Your task to perform on an android device: toggle data saver in the chrome app Image 0: 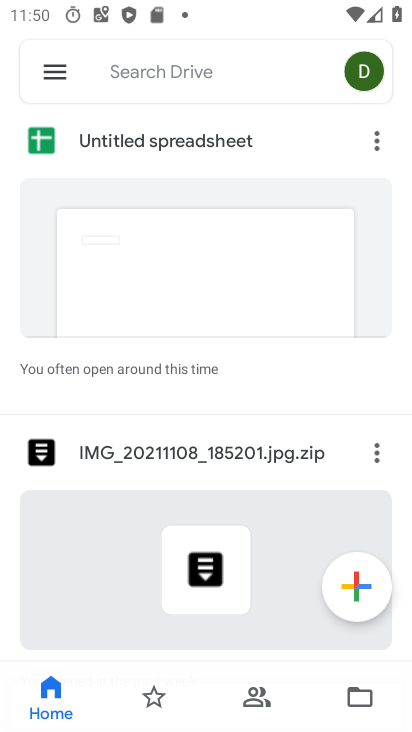
Step 0: press home button
Your task to perform on an android device: toggle data saver in the chrome app Image 1: 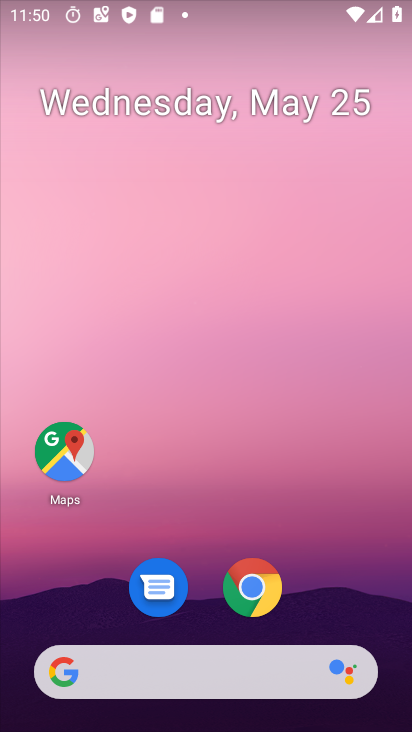
Step 1: drag from (248, 697) to (228, 71)
Your task to perform on an android device: toggle data saver in the chrome app Image 2: 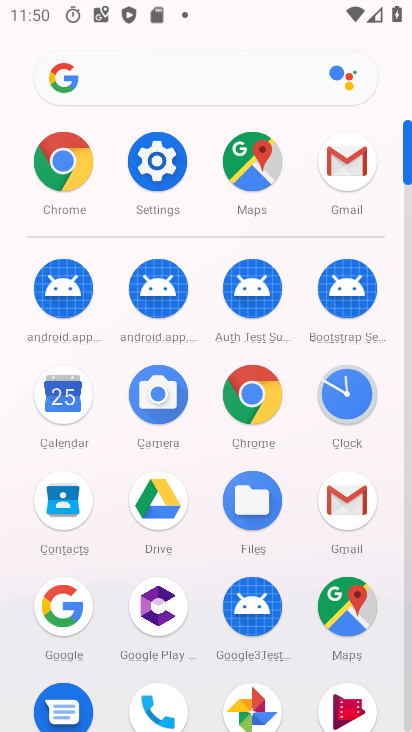
Step 2: click (71, 170)
Your task to perform on an android device: toggle data saver in the chrome app Image 3: 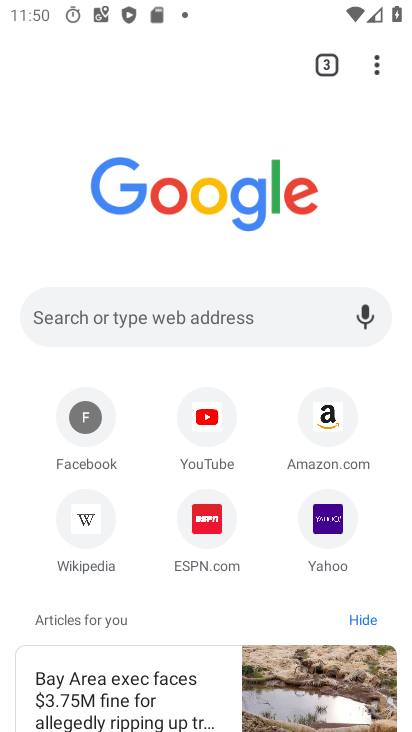
Step 3: click (379, 81)
Your task to perform on an android device: toggle data saver in the chrome app Image 4: 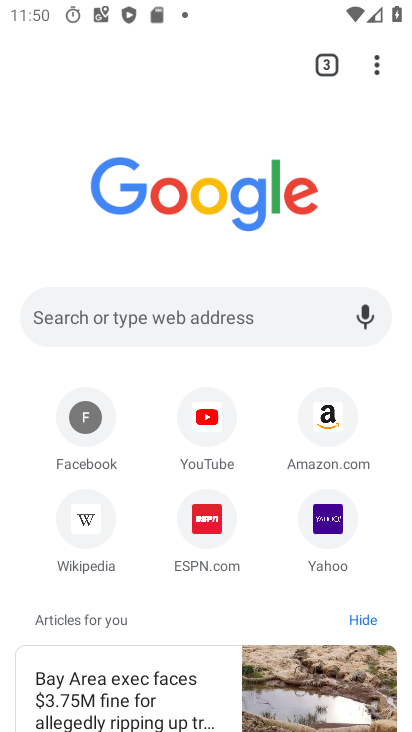
Step 4: click (365, 75)
Your task to perform on an android device: toggle data saver in the chrome app Image 5: 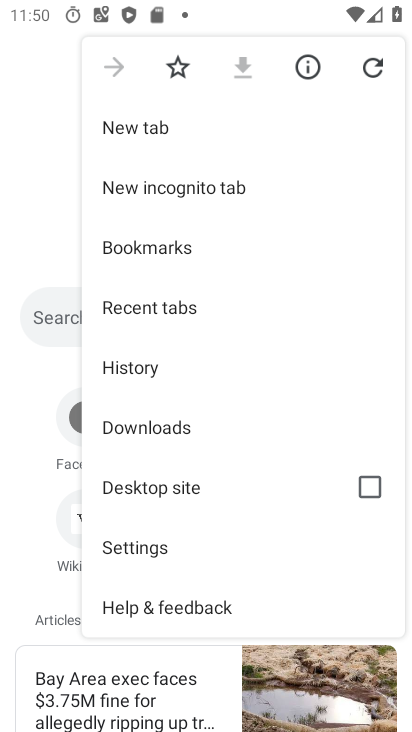
Step 5: click (167, 547)
Your task to perform on an android device: toggle data saver in the chrome app Image 6: 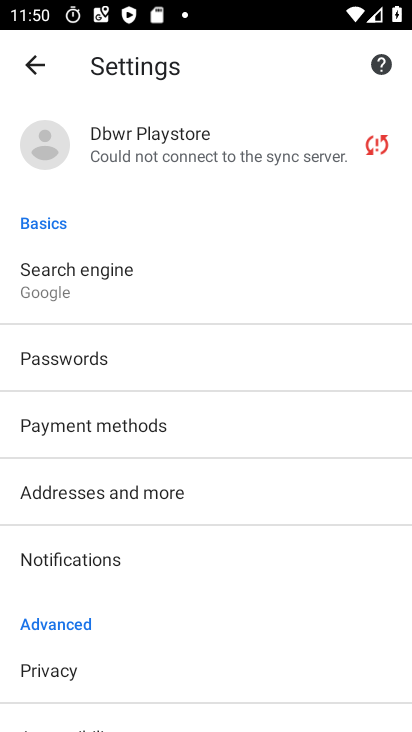
Step 6: drag from (178, 676) to (212, 329)
Your task to perform on an android device: toggle data saver in the chrome app Image 7: 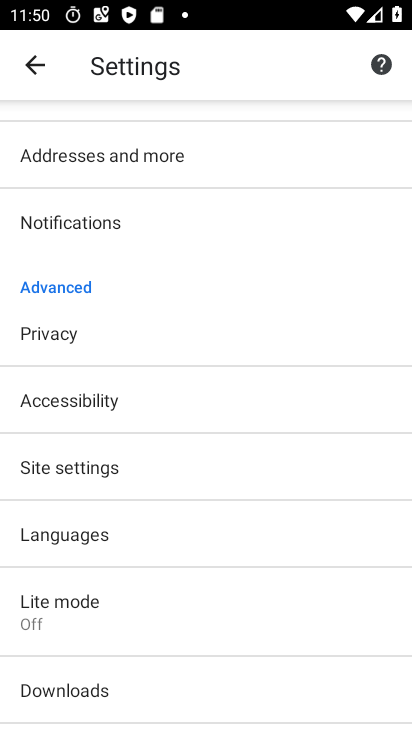
Step 7: click (114, 604)
Your task to perform on an android device: toggle data saver in the chrome app Image 8: 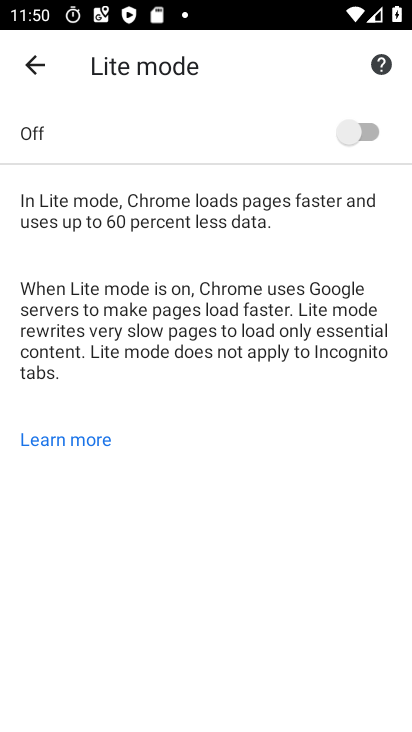
Step 8: task complete